Your task to perform on an android device: turn on showing notifications on the lock screen Image 0: 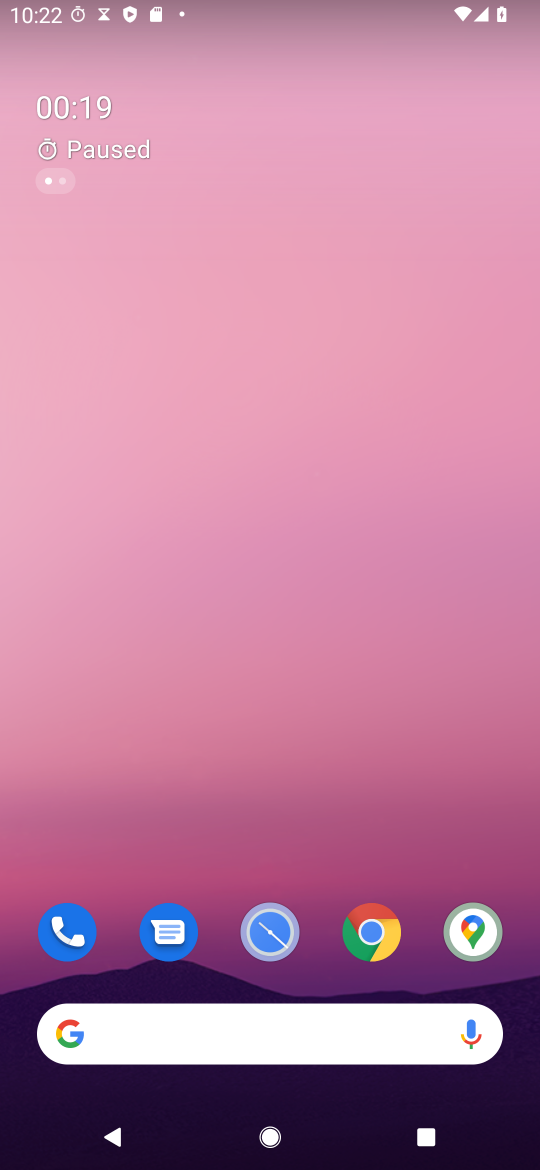
Step 0: drag from (177, 1050) to (311, 156)
Your task to perform on an android device: turn on showing notifications on the lock screen Image 1: 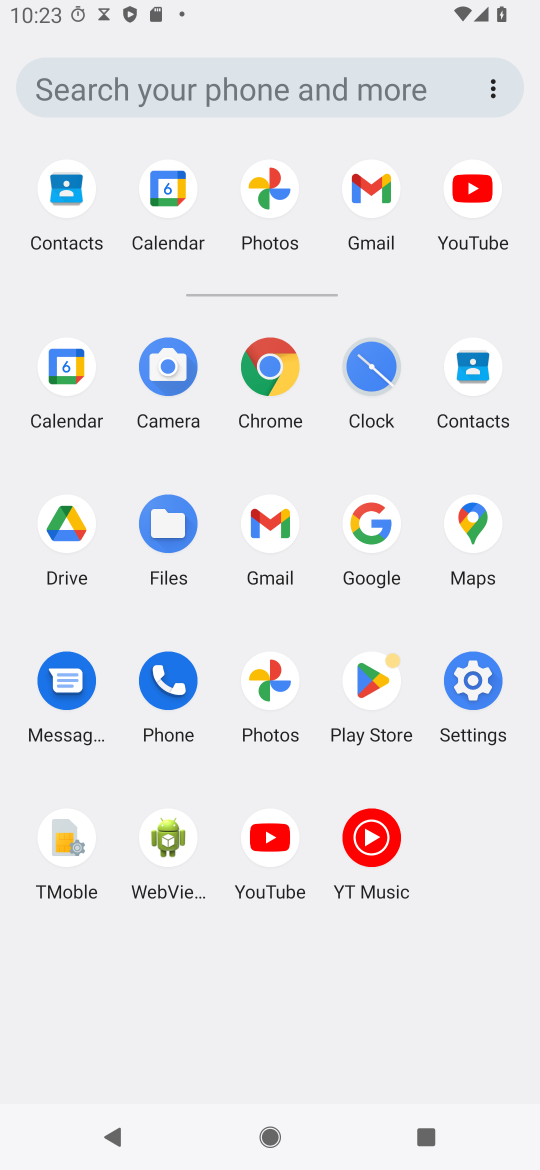
Step 1: click (474, 679)
Your task to perform on an android device: turn on showing notifications on the lock screen Image 2: 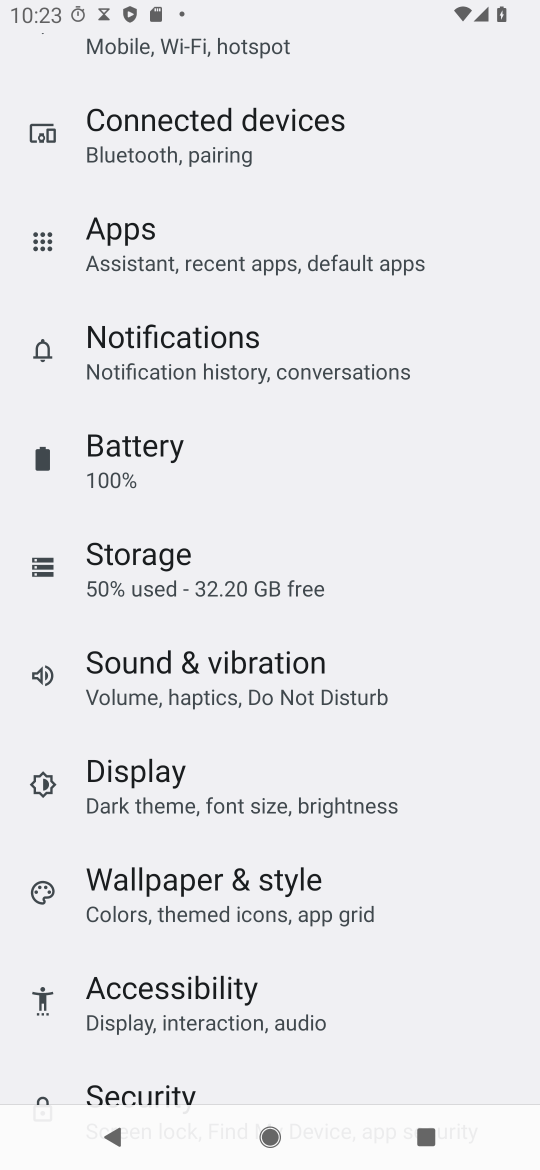
Step 2: click (242, 369)
Your task to perform on an android device: turn on showing notifications on the lock screen Image 3: 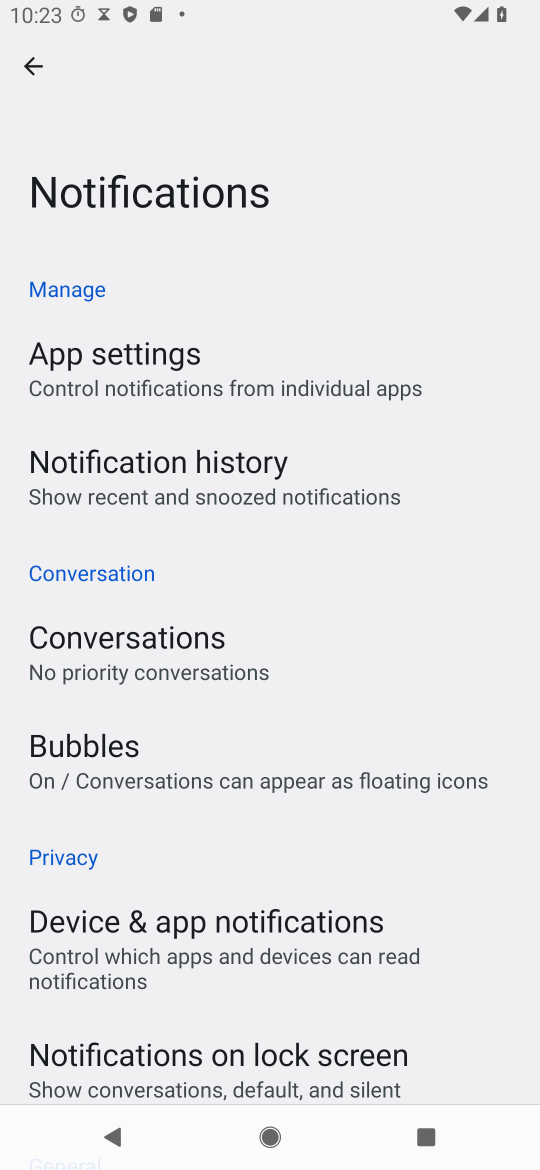
Step 3: drag from (215, 757) to (242, 635)
Your task to perform on an android device: turn on showing notifications on the lock screen Image 4: 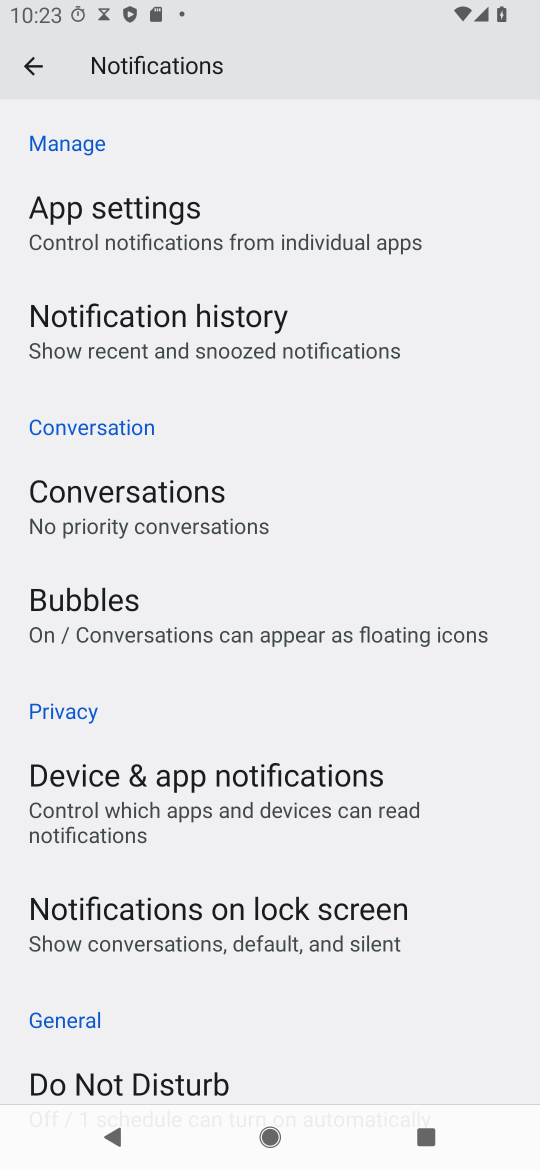
Step 4: click (195, 938)
Your task to perform on an android device: turn on showing notifications on the lock screen Image 5: 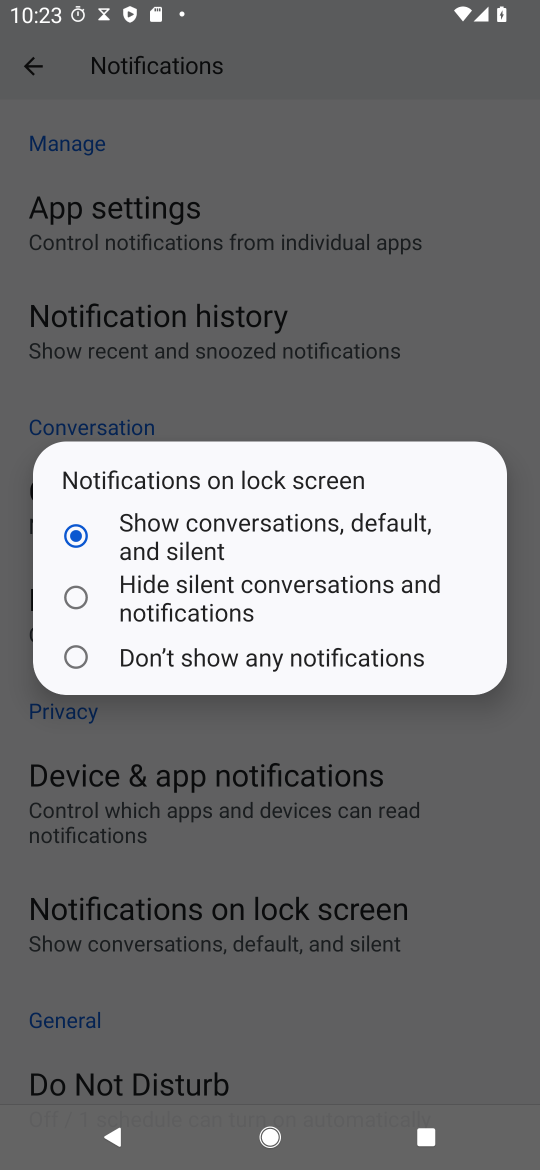
Step 5: click (76, 543)
Your task to perform on an android device: turn on showing notifications on the lock screen Image 6: 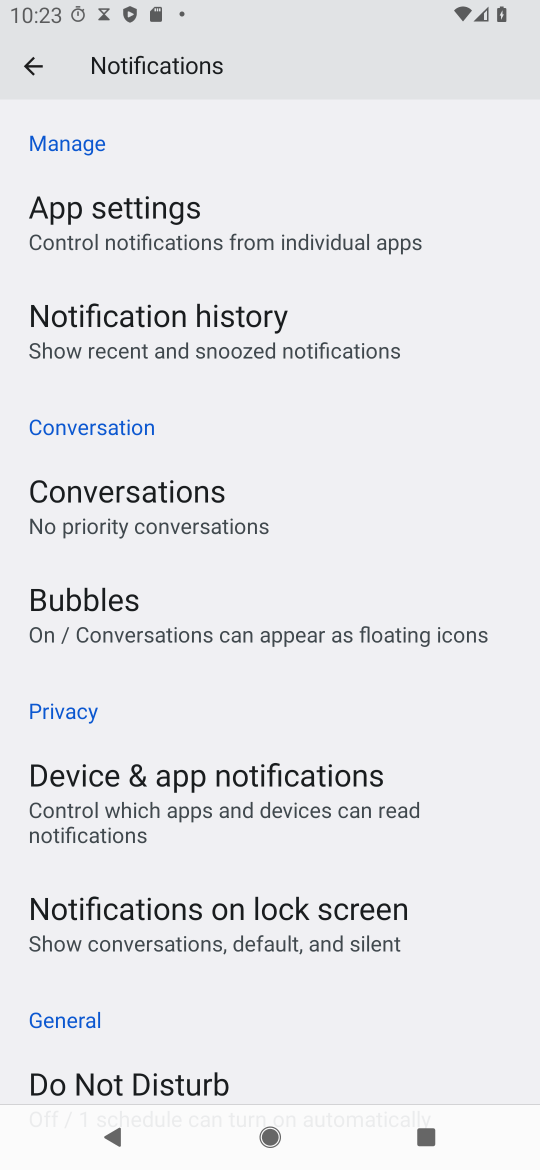
Step 6: task complete